Your task to perform on an android device: open chrome privacy settings Image 0: 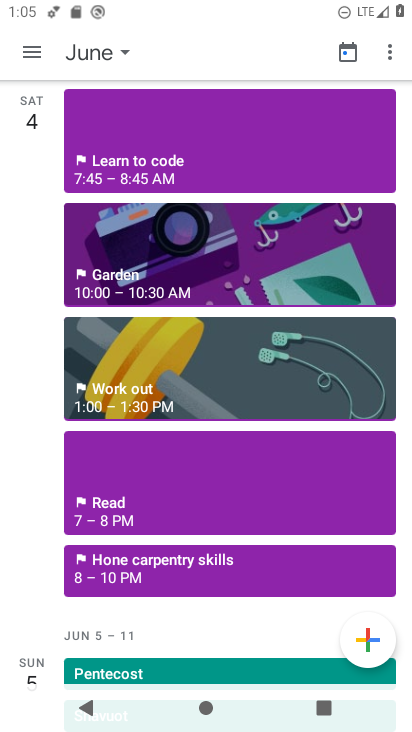
Step 0: press home button
Your task to perform on an android device: open chrome privacy settings Image 1: 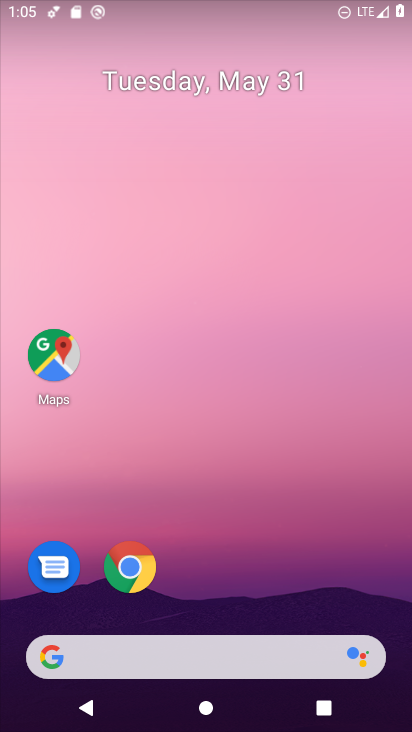
Step 1: click (149, 575)
Your task to perform on an android device: open chrome privacy settings Image 2: 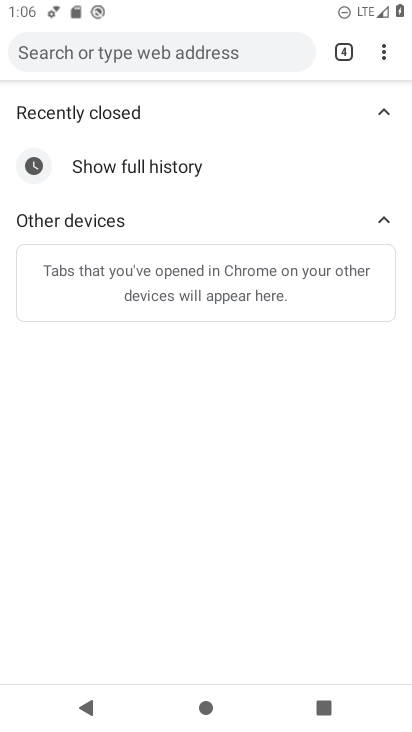
Step 2: click (385, 37)
Your task to perform on an android device: open chrome privacy settings Image 3: 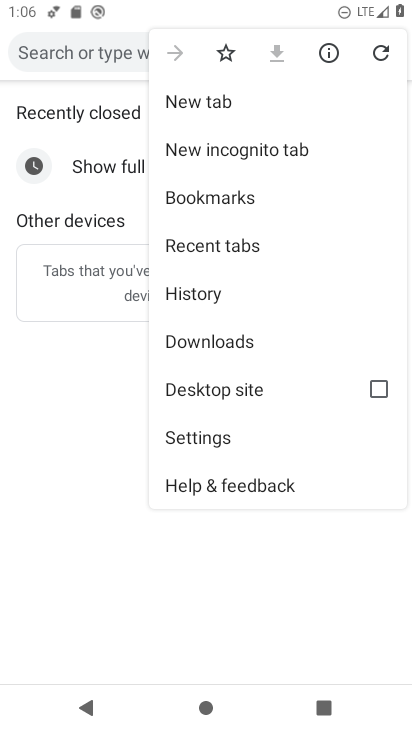
Step 3: click (202, 427)
Your task to perform on an android device: open chrome privacy settings Image 4: 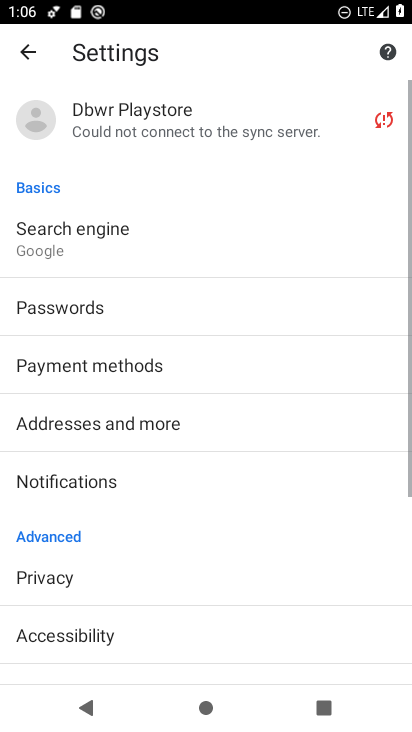
Step 4: drag from (186, 600) to (192, 434)
Your task to perform on an android device: open chrome privacy settings Image 5: 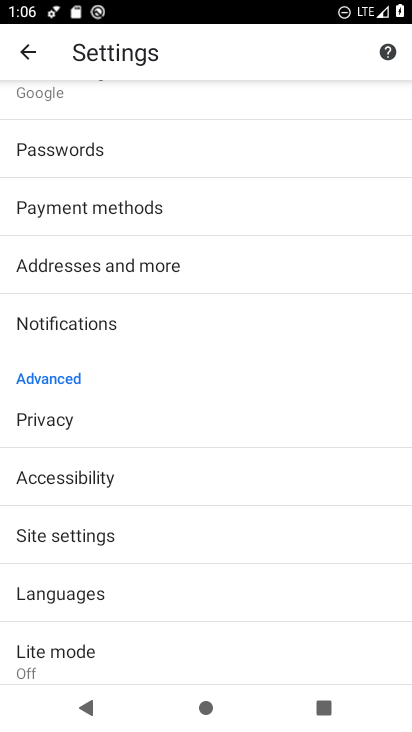
Step 5: click (128, 426)
Your task to perform on an android device: open chrome privacy settings Image 6: 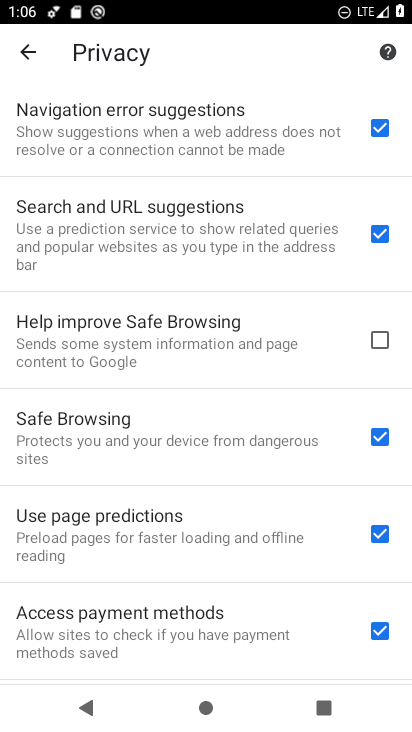
Step 6: task complete